Your task to perform on an android device: find which apps use the phone's location Image 0: 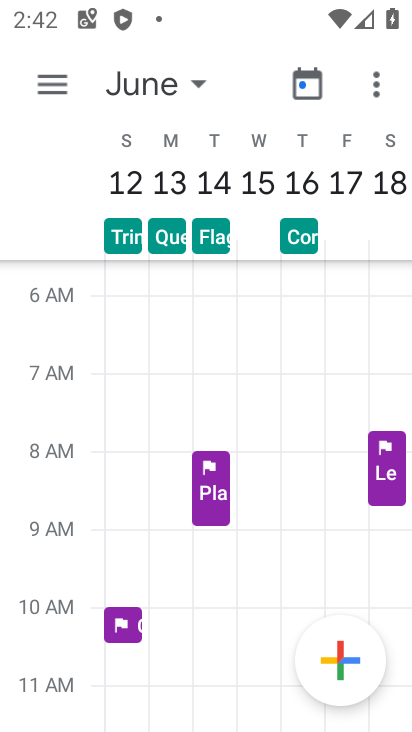
Step 0: press home button
Your task to perform on an android device: find which apps use the phone's location Image 1: 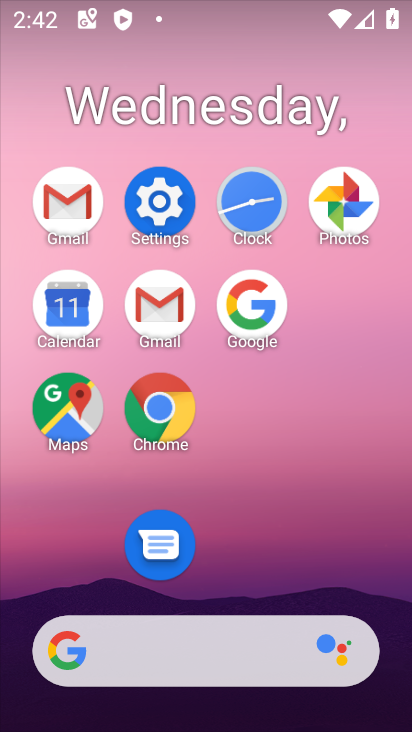
Step 1: click (152, 208)
Your task to perform on an android device: find which apps use the phone's location Image 2: 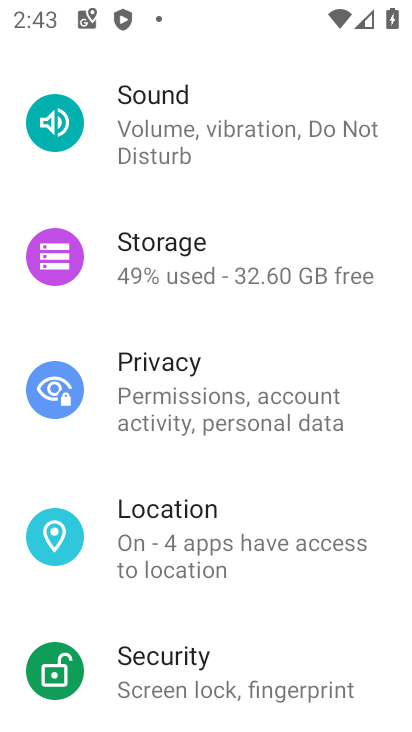
Step 2: click (245, 532)
Your task to perform on an android device: find which apps use the phone's location Image 3: 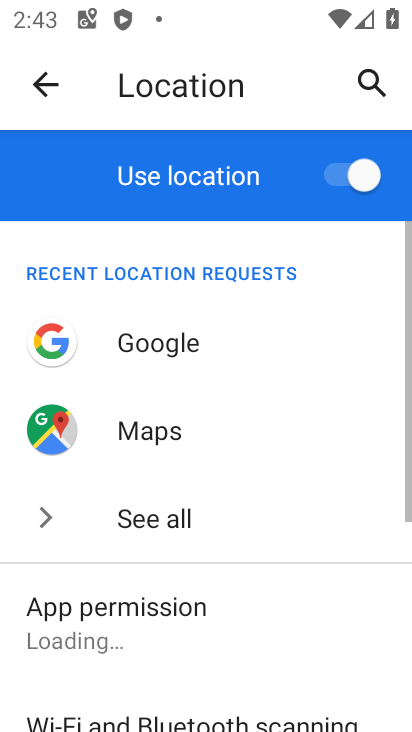
Step 3: task complete